Your task to perform on an android device: stop showing notifications on the lock screen Image 0: 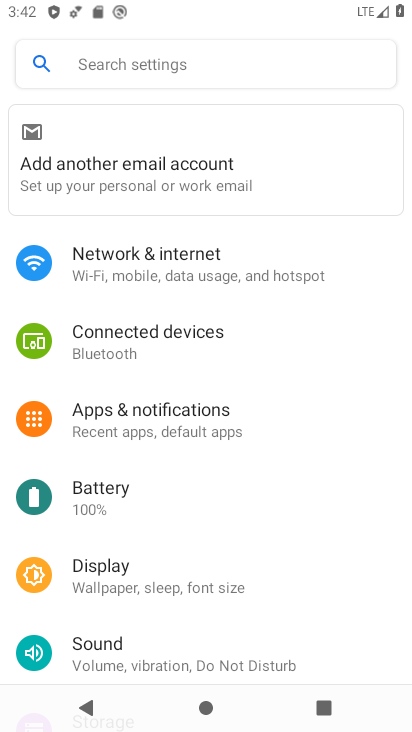
Step 0: click (153, 422)
Your task to perform on an android device: stop showing notifications on the lock screen Image 1: 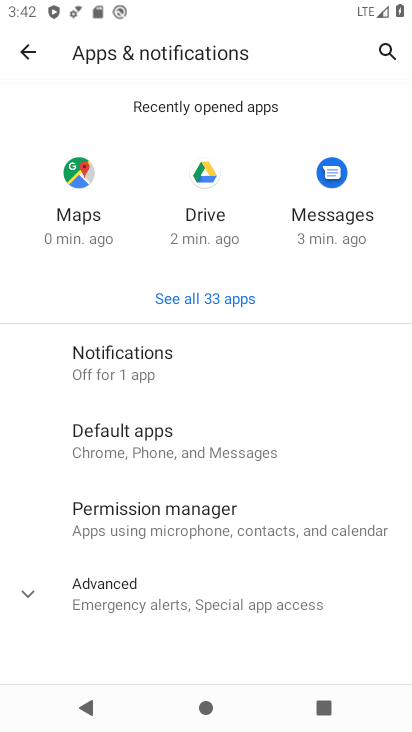
Step 1: click (179, 368)
Your task to perform on an android device: stop showing notifications on the lock screen Image 2: 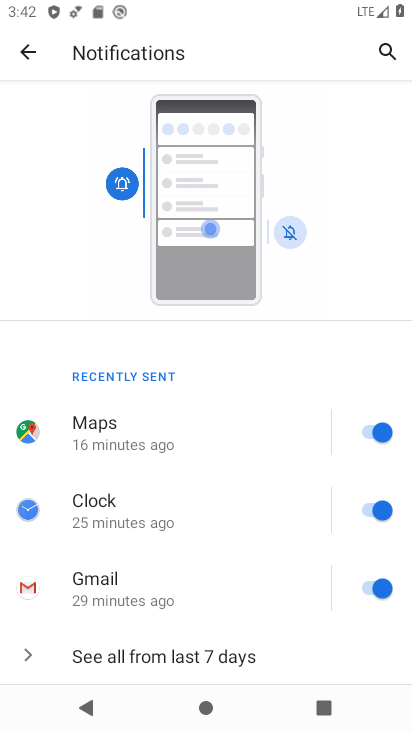
Step 2: drag from (214, 522) to (165, 83)
Your task to perform on an android device: stop showing notifications on the lock screen Image 3: 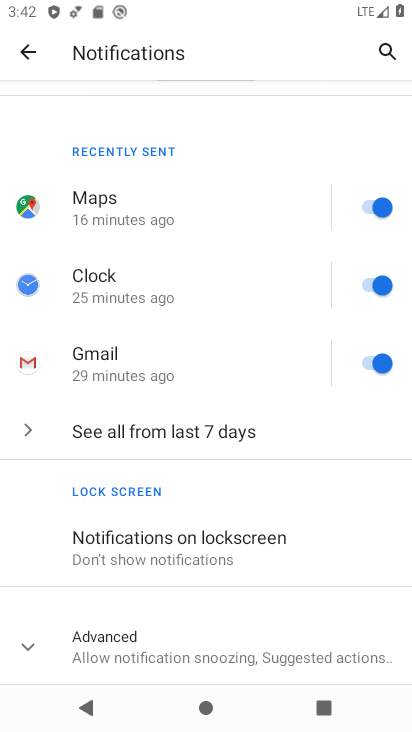
Step 3: drag from (222, 558) to (188, 175)
Your task to perform on an android device: stop showing notifications on the lock screen Image 4: 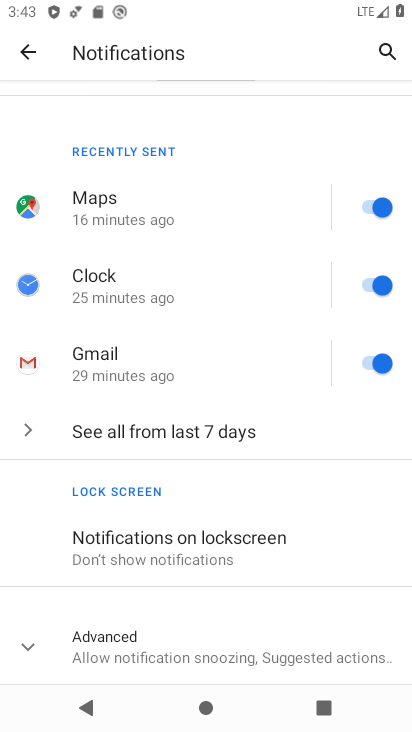
Step 4: click (188, 548)
Your task to perform on an android device: stop showing notifications on the lock screen Image 5: 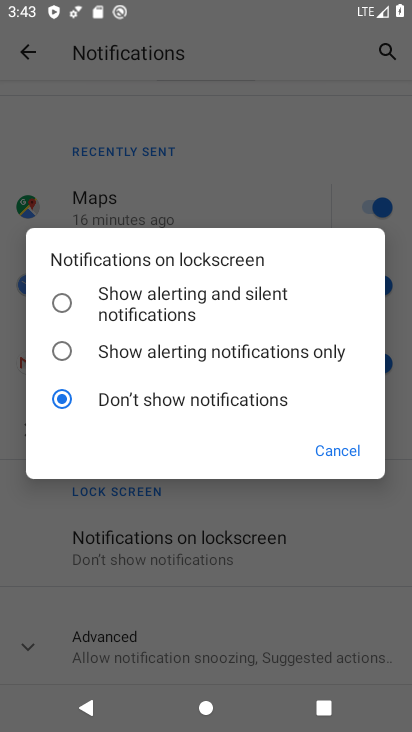
Step 5: click (164, 399)
Your task to perform on an android device: stop showing notifications on the lock screen Image 6: 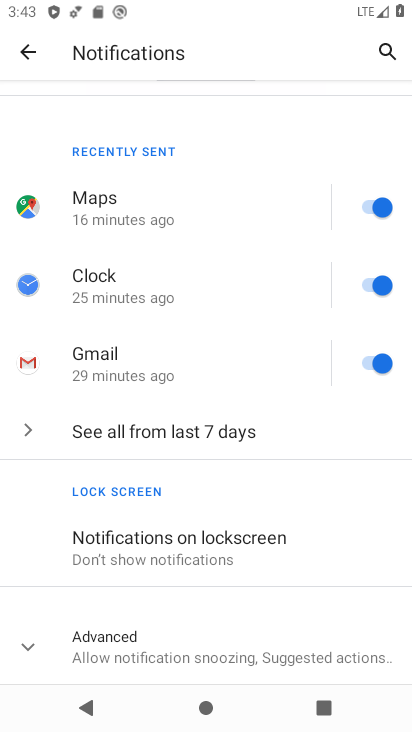
Step 6: task complete